Your task to perform on an android device: Search for seafood restaurants on Google Maps Image 0: 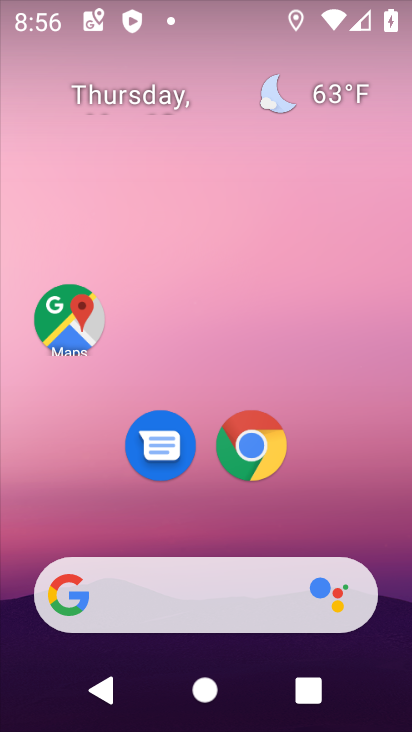
Step 0: click (94, 324)
Your task to perform on an android device: Search for seafood restaurants on Google Maps Image 1: 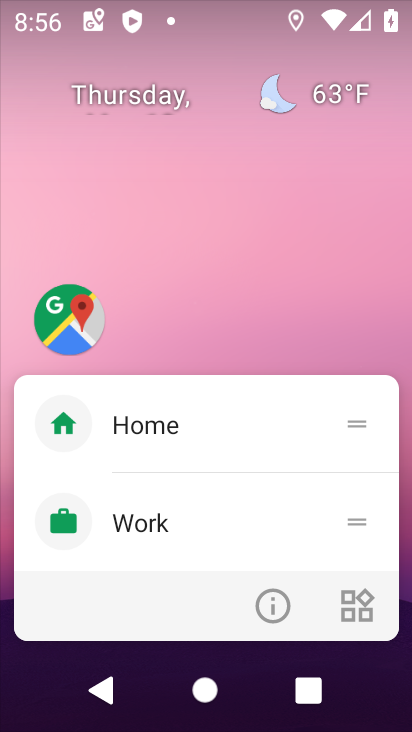
Step 1: click (92, 332)
Your task to perform on an android device: Search for seafood restaurants on Google Maps Image 2: 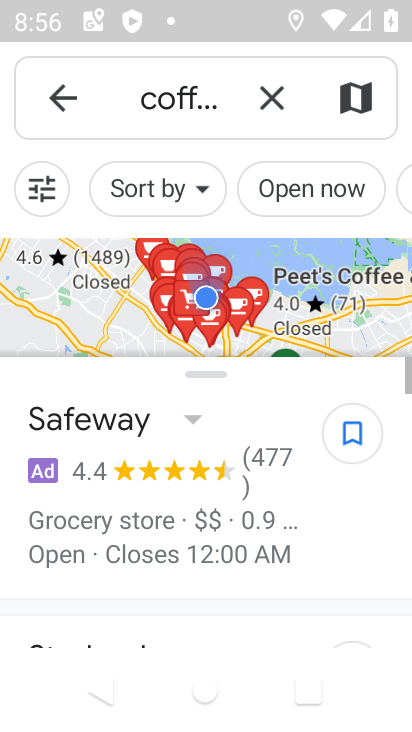
Step 2: click (276, 97)
Your task to perform on an android device: Search for seafood restaurants on Google Maps Image 3: 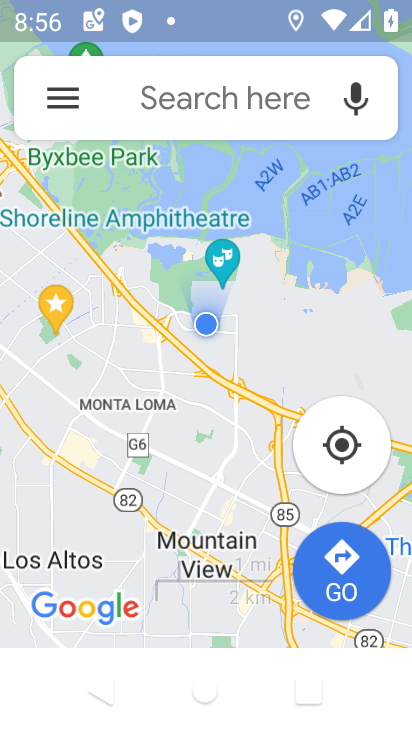
Step 3: click (170, 91)
Your task to perform on an android device: Search for seafood restaurants on Google Maps Image 4: 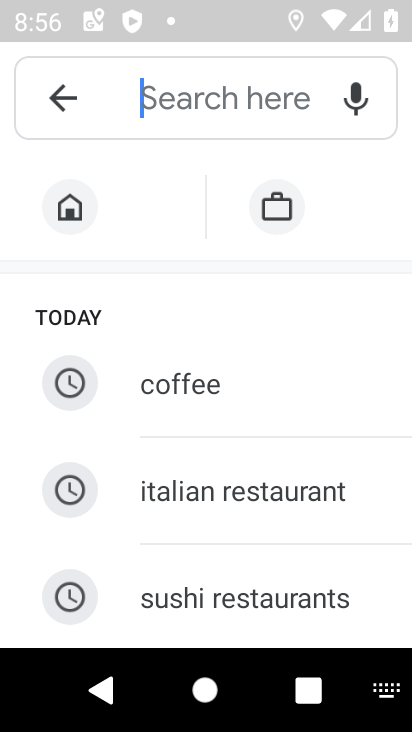
Step 4: type "seafood restaurants"
Your task to perform on an android device: Search for seafood restaurants on Google Maps Image 5: 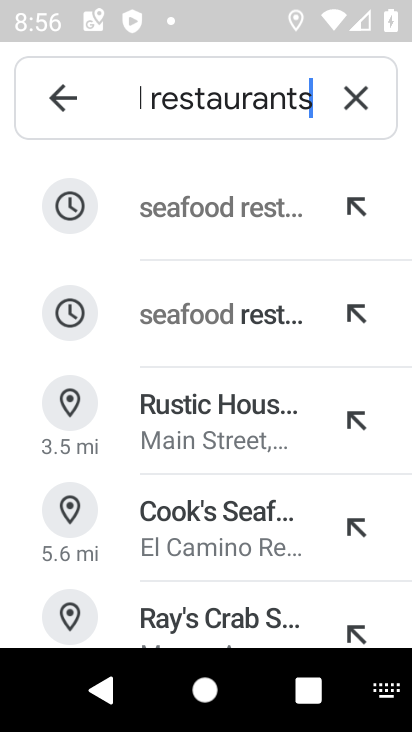
Step 5: click (245, 220)
Your task to perform on an android device: Search for seafood restaurants on Google Maps Image 6: 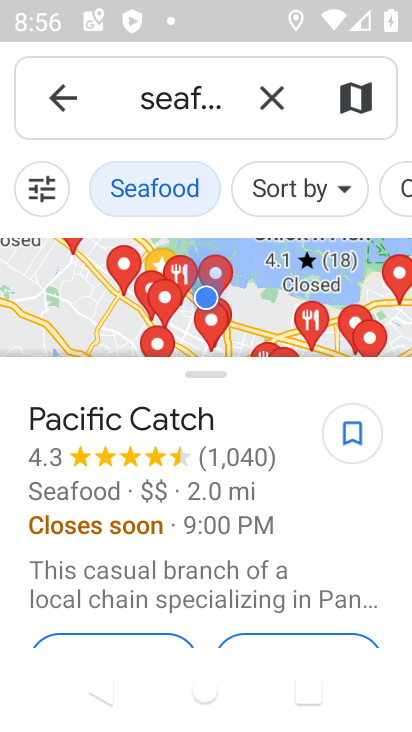
Step 6: task complete